Your task to perform on an android device: set the stopwatch Image 0: 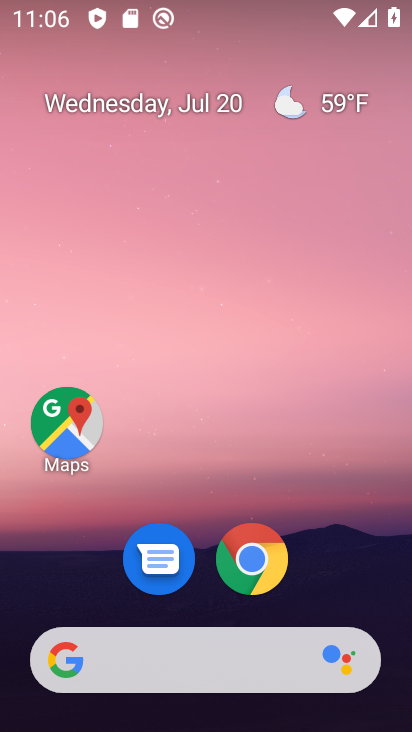
Step 0: drag from (186, 584) to (268, 50)
Your task to perform on an android device: set the stopwatch Image 1: 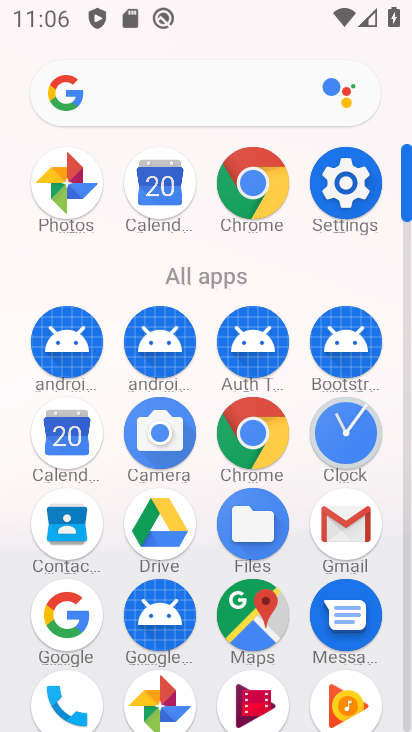
Step 1: click (340, 435)
Your task to perform on an android device: set the stopwatch Image 2: 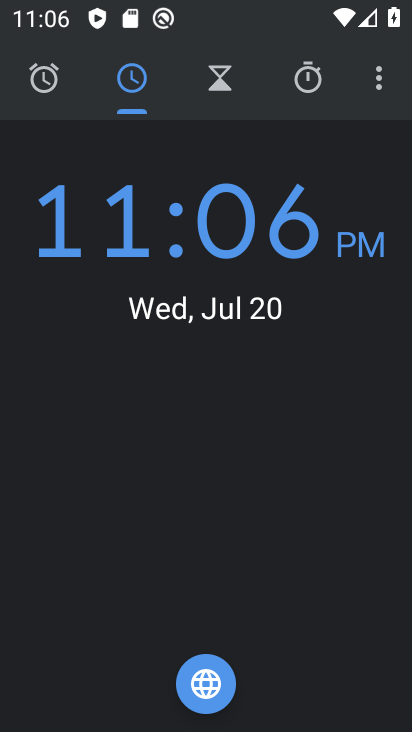
Step 2: click (317, 79)
Your task to perform on an android device: set the stopwatch Image 3: 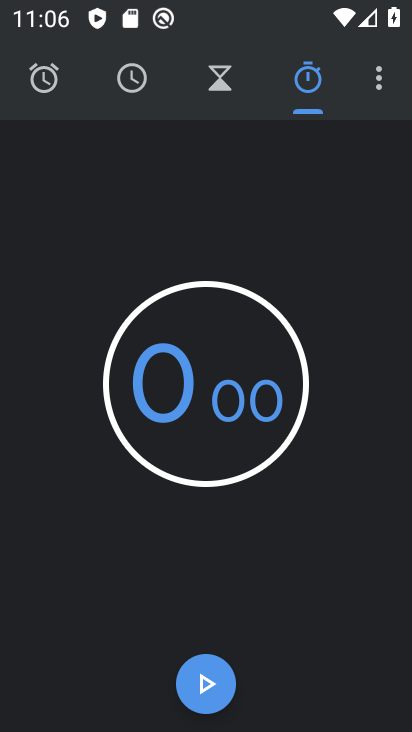
Step 3: click (194, 411)
Your task to perform on an android device: set the stopwatch Image 4: 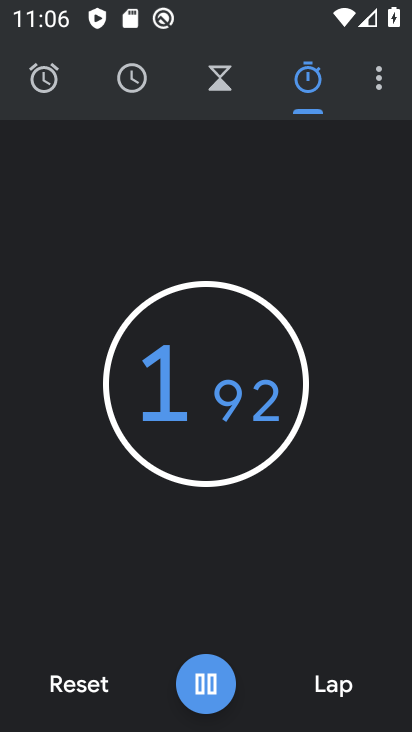
Step 4: click (194, 411)
Your task to perform on an android device: set the stopwatch Image 5: 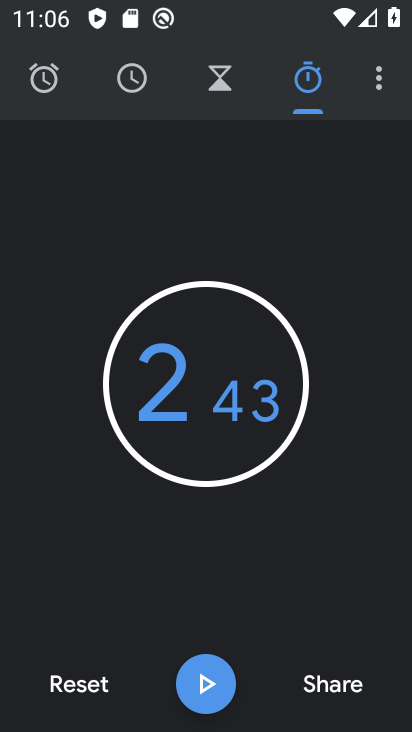
Step 5: task complete